Your task to perform on an android device: open a bookmark in the chrome app Image 0: 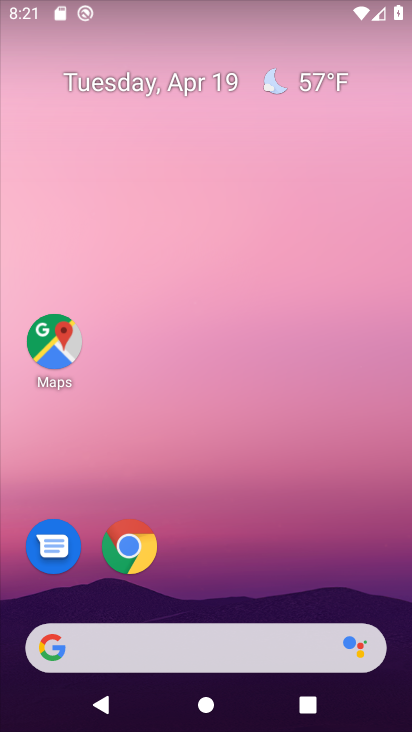
Step 0: click (141, 559)
Your task to perform on an android device: open a bookmark in the chrome app Image 1: 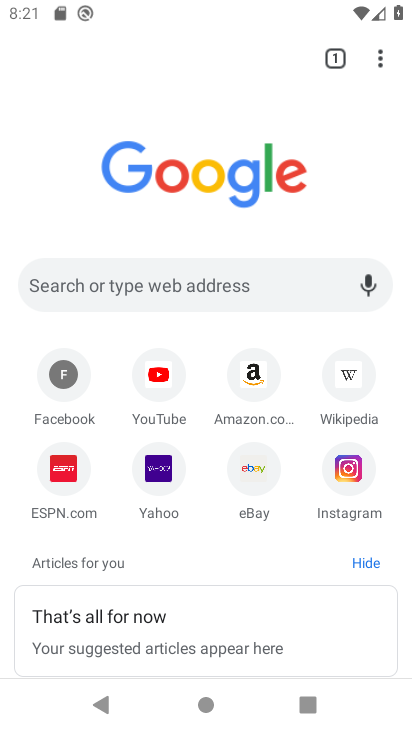
Step 1: click (267, 478)
Your task to perform on an android device: open a bookmark in the chrome app Image 2: 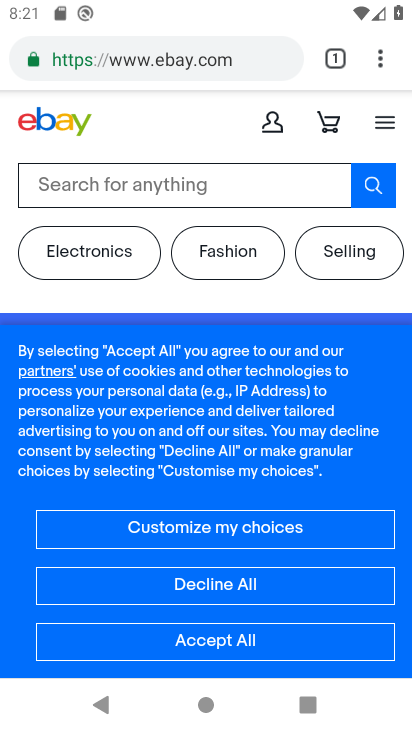
Step 2: task complete